Your task to perform on an android device: What's US dollar exchange rate against the British Pound? Image 0: 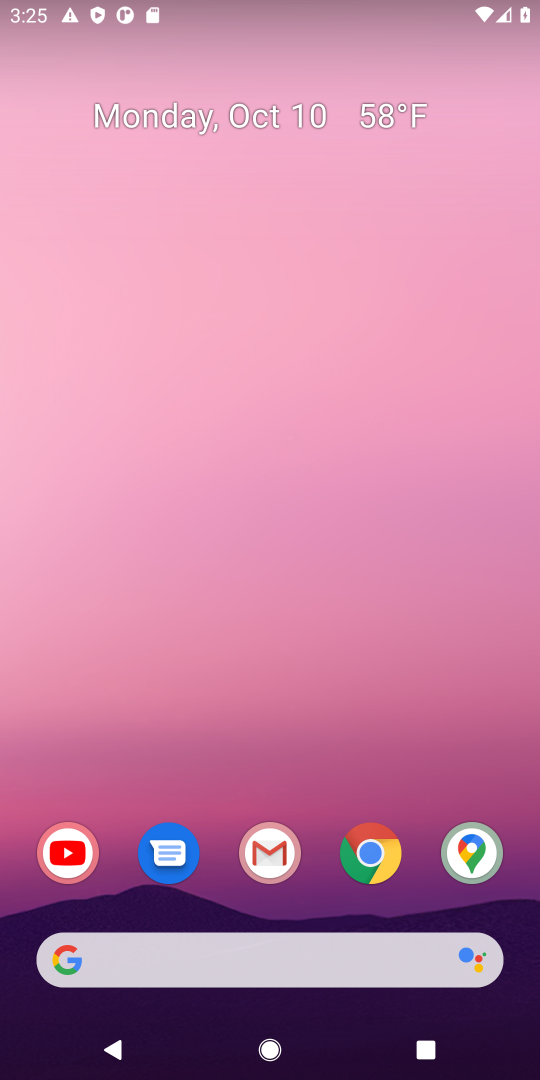
Step 0: click (123, 969)
Your task to perform on an android device: What's US dollar exchange rate against the British Pound? Image 1: 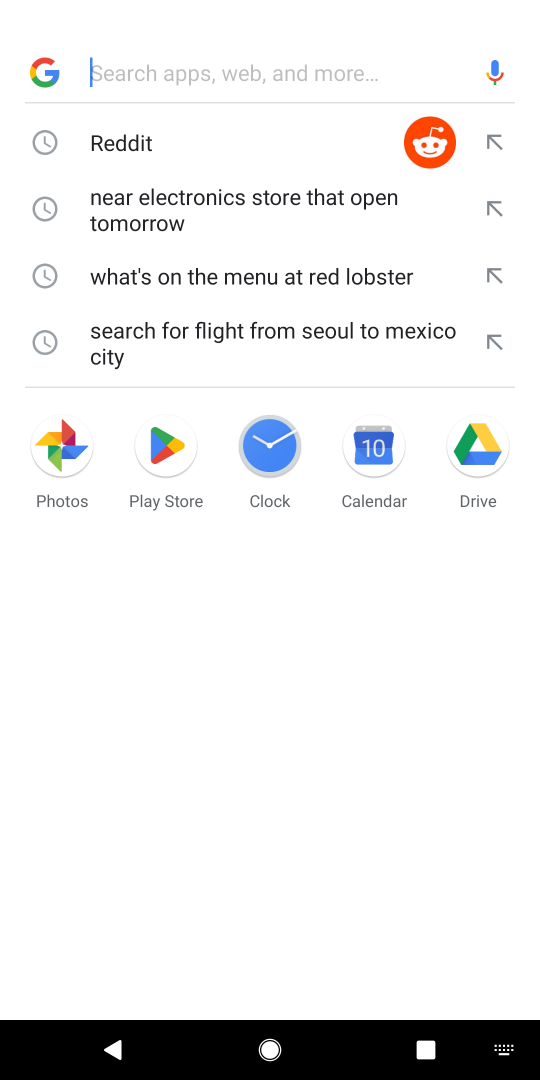
Step 1: click (192, 74)
Your task to perform on an android device: What's US dollar exchange rate against the British Pound? Image 2: 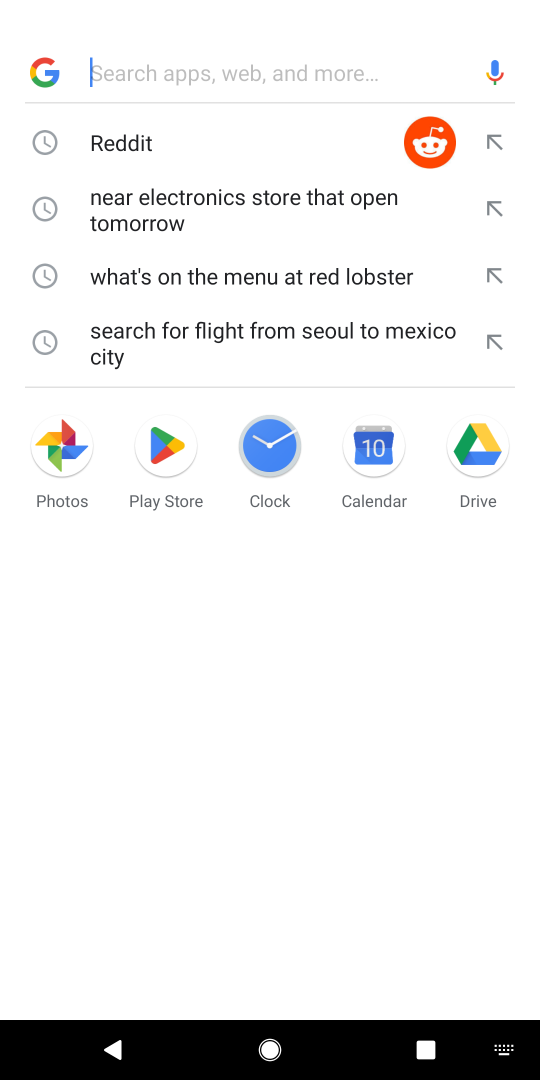
Step 2: type "What's US dollar exchange rate against the British Pound"
Your task to perform on an android device: What's US dollar exchange rate against the British Pound? Image 3: 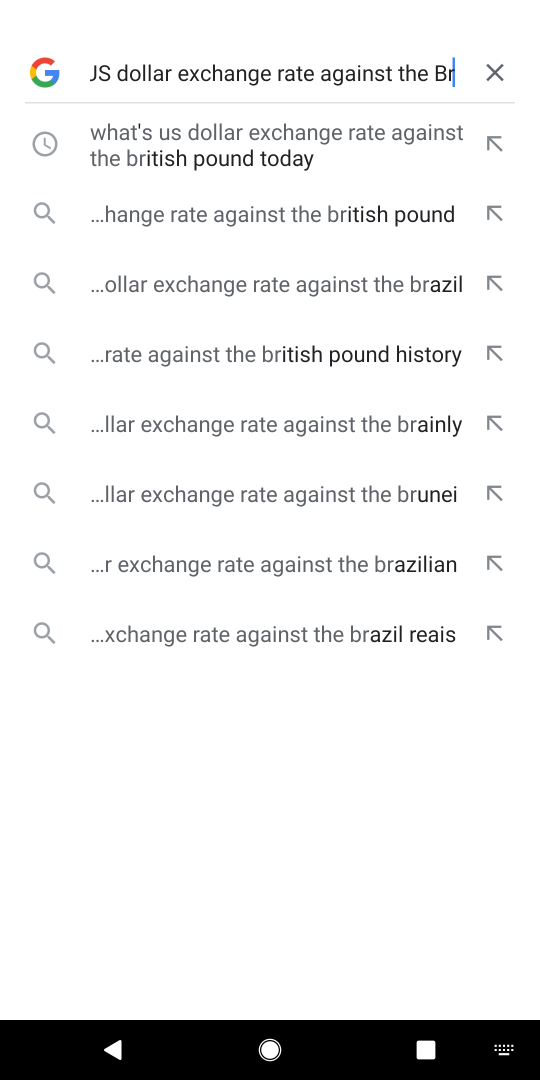
Step 3: click (269, 164)
Your task to perform on an android device: What's US dollar exchange rate against the British Pound? Image 4: 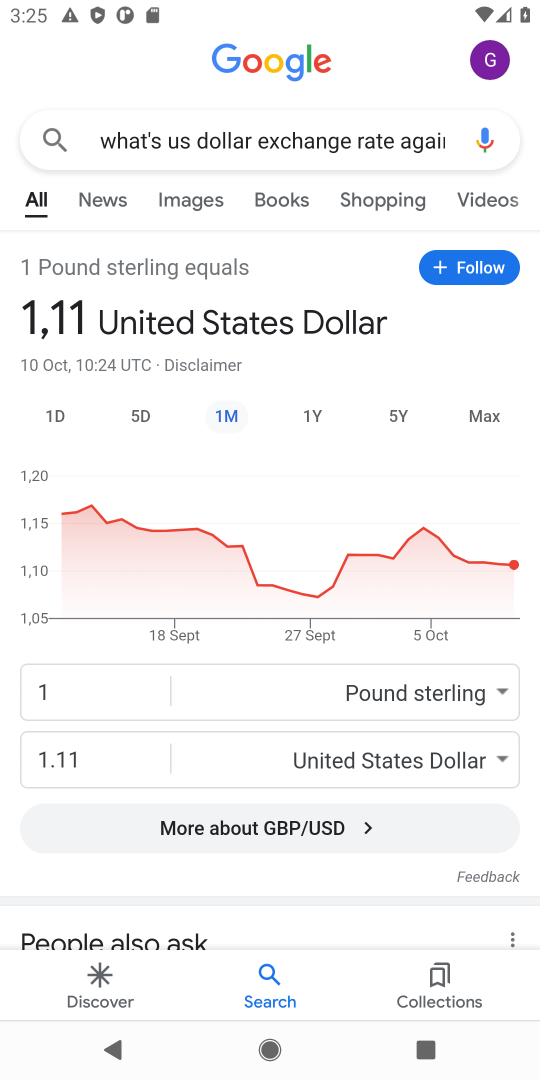
Step 4: task complete